Your task to perform on an android device: Go to battery settings Image 0: 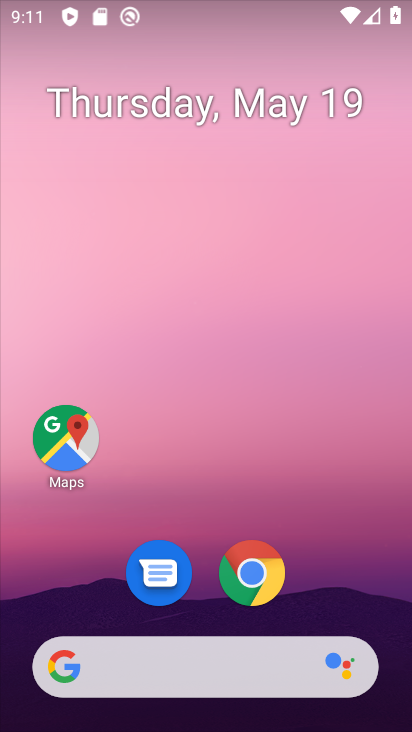
Step 0: drag from (204, 613) to (227, 197)
Your task to perform on an android device: Go to battery settings Image 1: 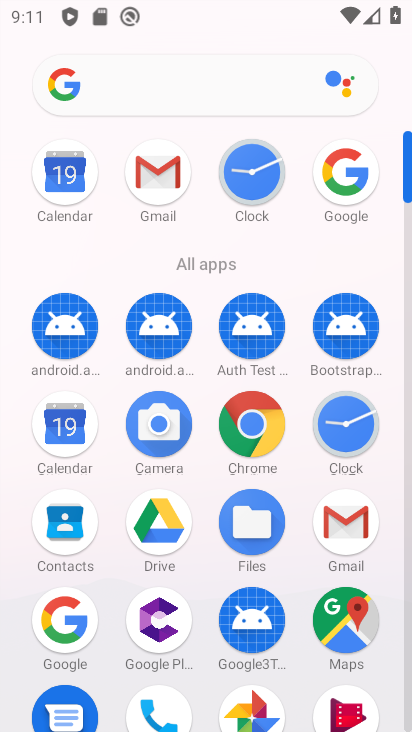
Step 1: drag from (233, 611) to (247, 290)
Your task to perform on an android device: Go to battery settings Image 2: 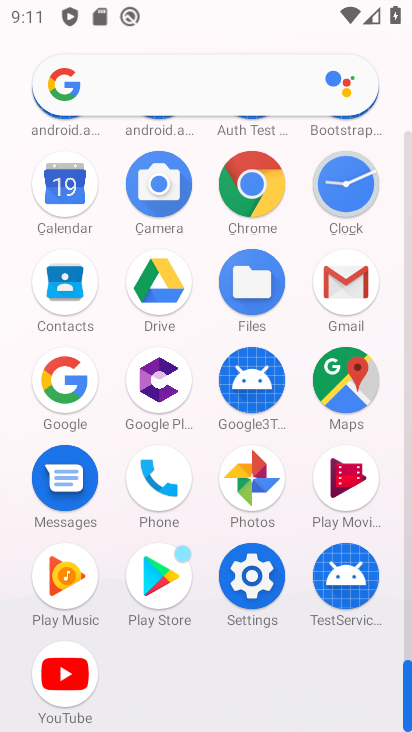
Step 2: click (242, 573)
Your task to perform on an android device: Go to battery settings Image 3: 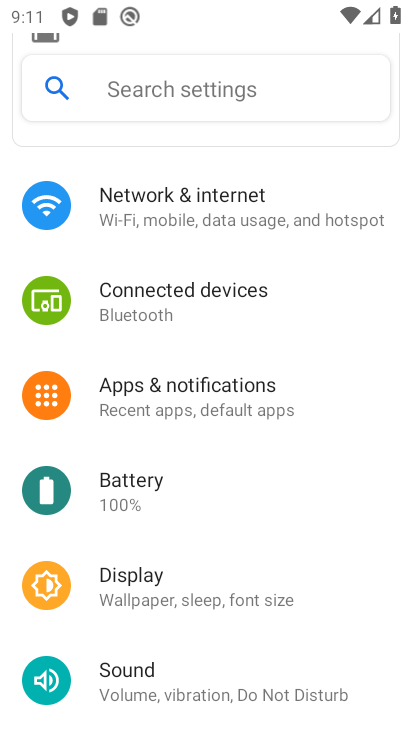
Step 3: click (148, 491)
Your task to perform on an android device: Go to battery settings Image 4: 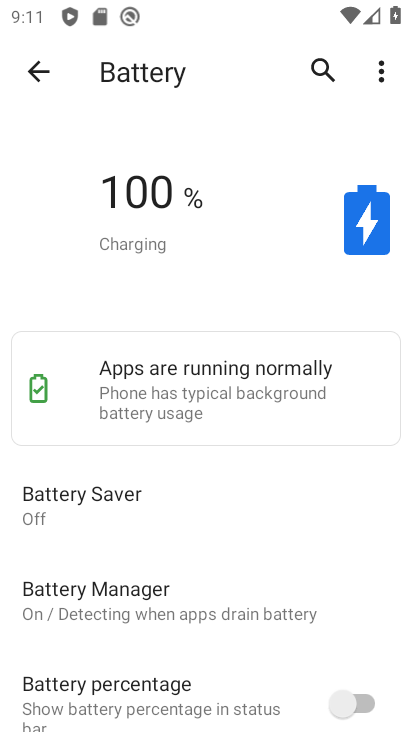
Step 4: task complete